Your task to perform on an android device: Open Google Chrome and open the bookmarks view Image 0: 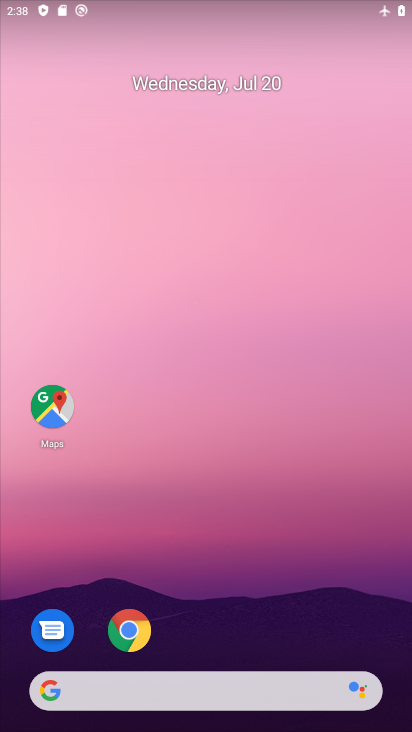
Step 0: drag from (294, 673) to (180, 157)
Your task to perform on an android device: Open Google Chrome and open the bookmarks view Image 1: 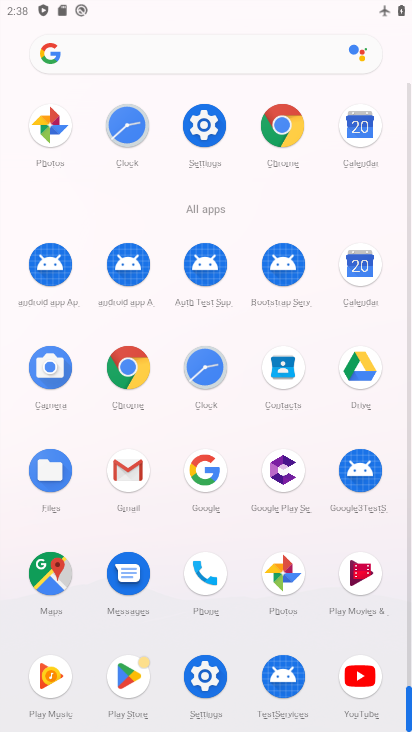
Step 1: click (285, 130)
Your task to perform on an android device: Open Google Chrome and open the bookmarks view Image 2: 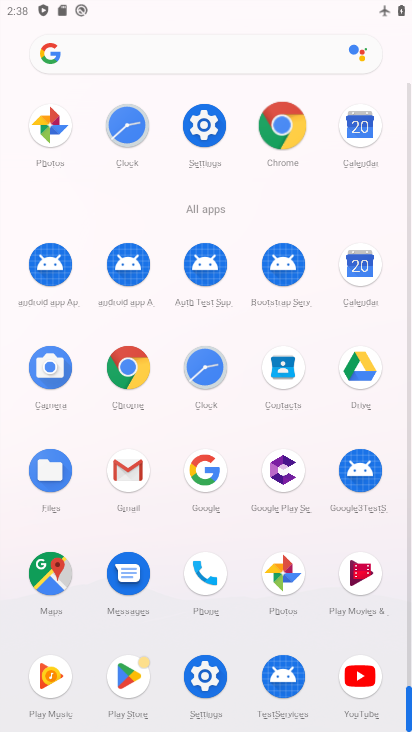
Step 2: click (285, 130)
Your task to perform on an android device: Open Google Chrome and open the bookmarks view Image 3: 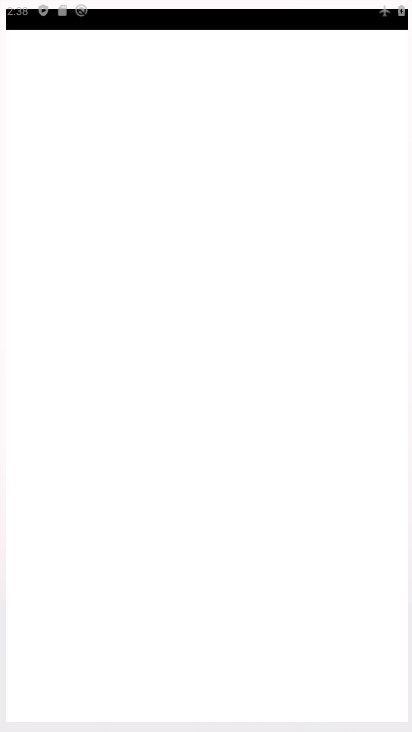
Step 3: click (285, 130)
Your task to perform on an android device: Open Google Chrome and open the bookmarks view Image 4: 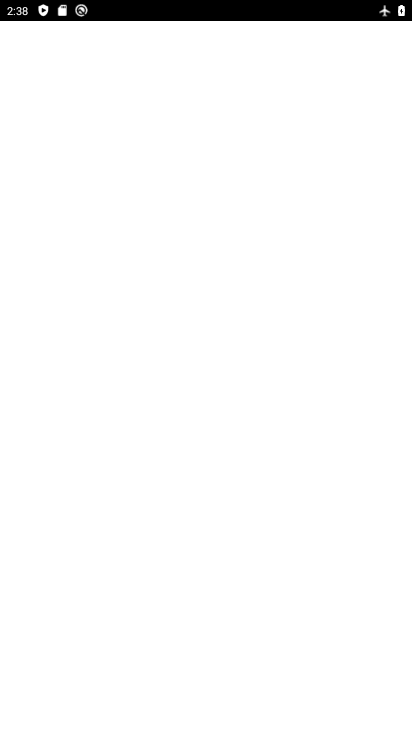
Step 4: click (285, 130)
Your task to perform on an android device: Open Google Chrome and open the bookmarks view Image 5: 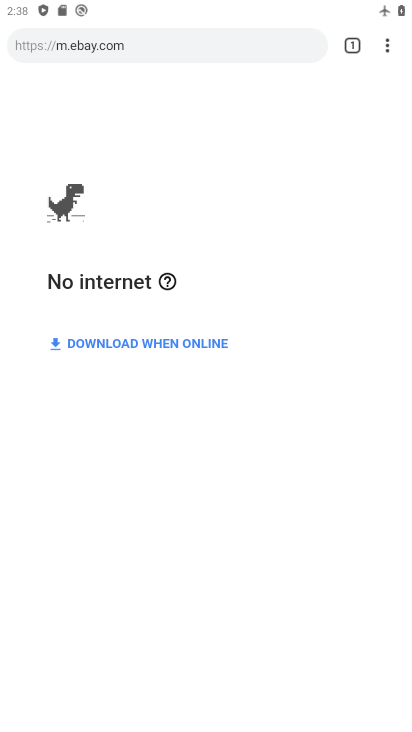
Step 5: drag from (392, 50) to (209, 176)
Your task to perform on an android device: Open Google Chrome and open the bookmarks view Image 6: 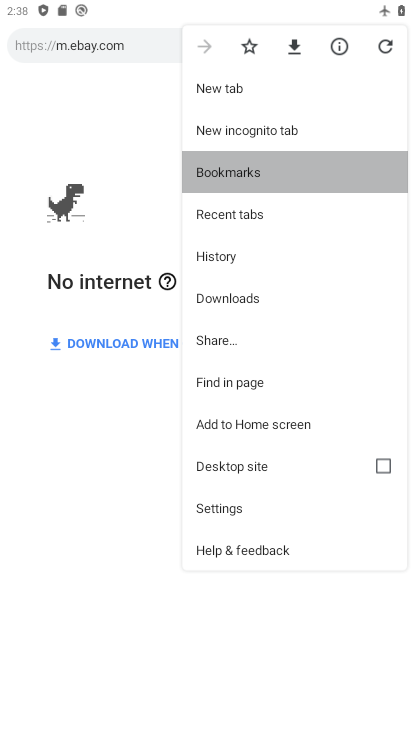
Step 6: click (209, 176)
Your task to perform on an android device: Open Google Chrome and open the bookmarks view Image 7: 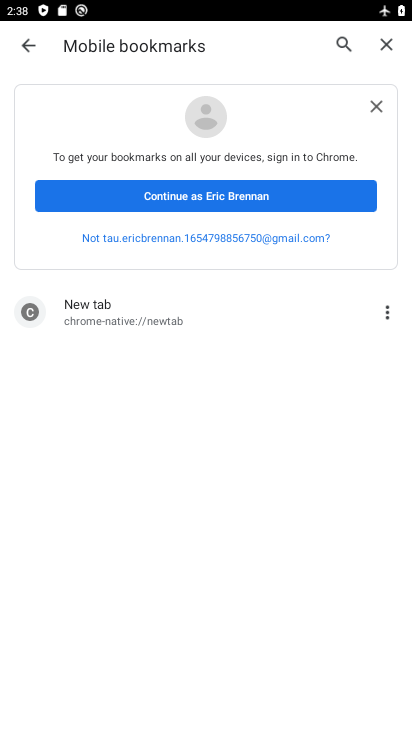
Step 7: click (386, 42)
Your task to perform on an android device: Open Google Chrome and open the bookmarks view Image 8: 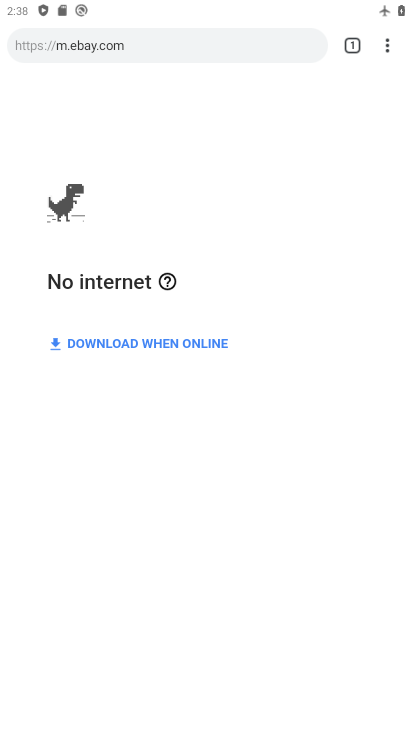
Step 8: task complete